Your task to perform on an android device: delete browsing data in the chrome app Image 0: 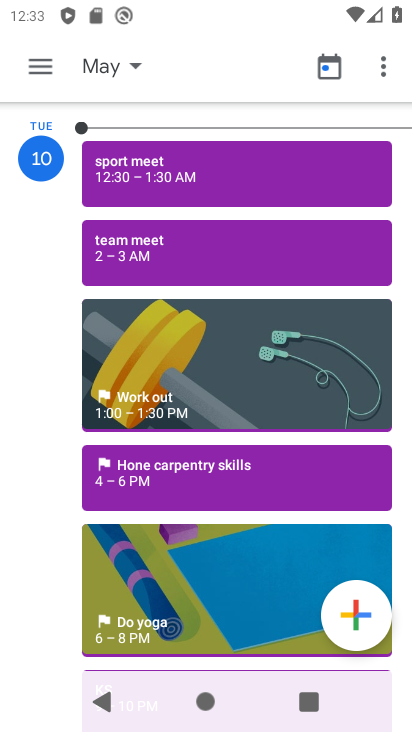
Step 0: press home button
Your task to perform on an android device: delete browsing data in the chrome app Image 1: 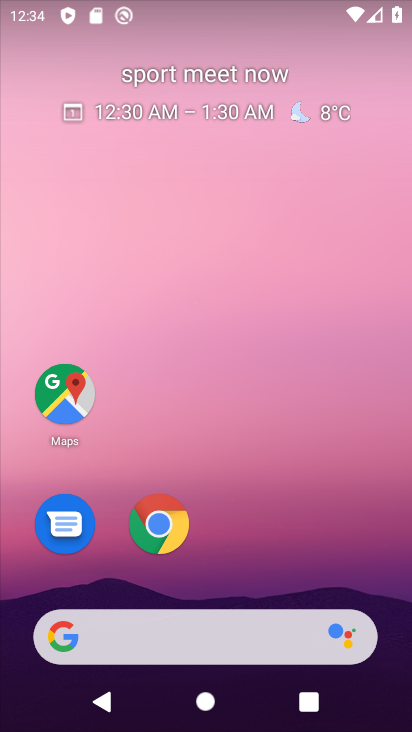
Step 1: click (152, 507)
Your task to perform on an android device: delete browsing data in the chrome app Image 2: 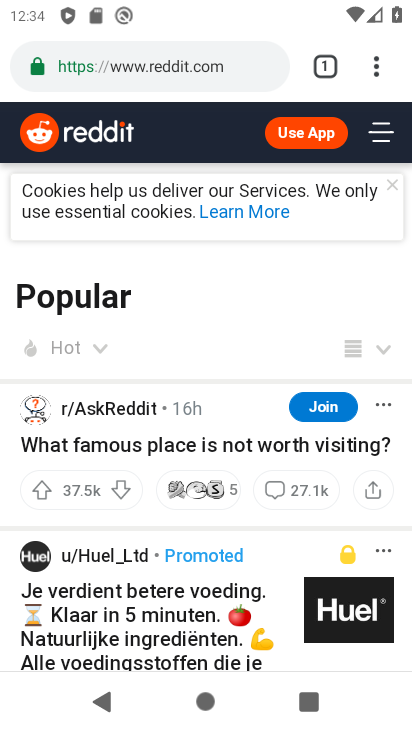
Step 2: drag from (376, 58) to (154, 370)
Your task to perform on an android device: delete browsing data in the chrome app Image 3: 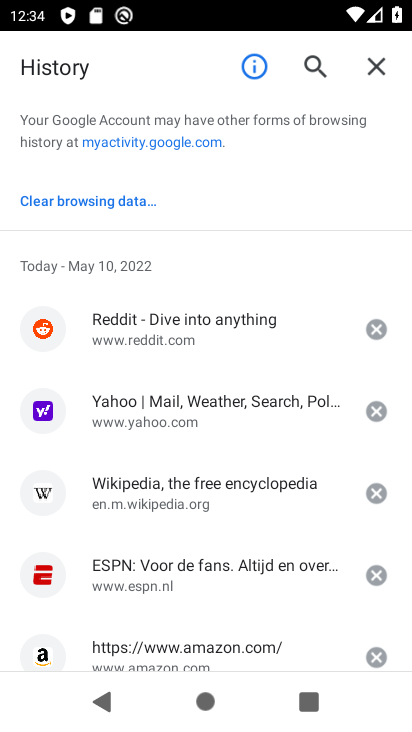
Step 3: click (109, 193)
Your task to perform on an android device: delete browsing data in the chrome app Image 4: 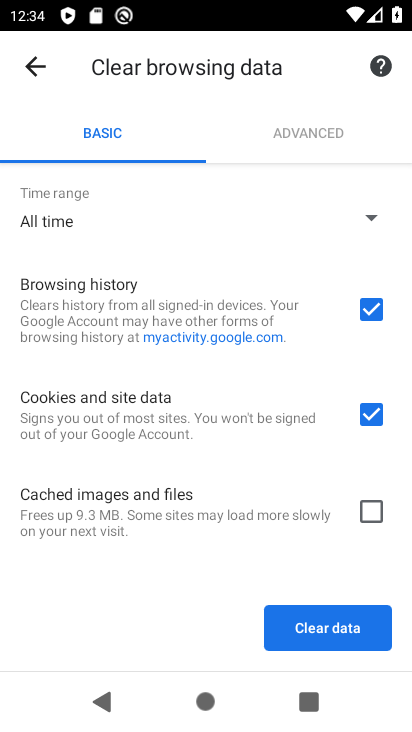
Step 4: click (365, 499)
Your task to perform on an android device: delete browsing data in the chrome app Image 5: 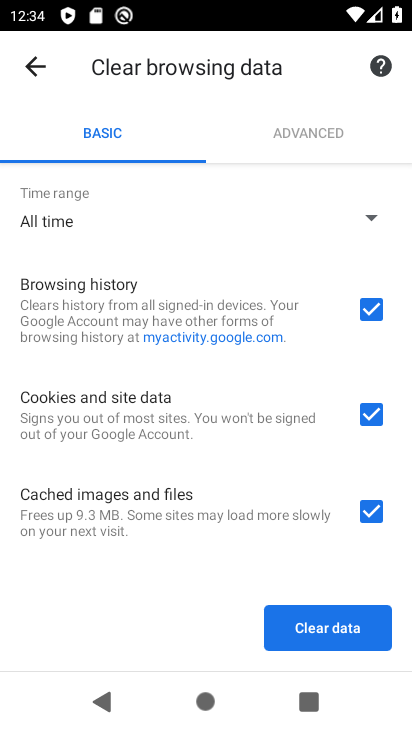
Step 5: click (358, 625)
Your task to perform on an android device: delete browsing data in the chrome app Image 6: 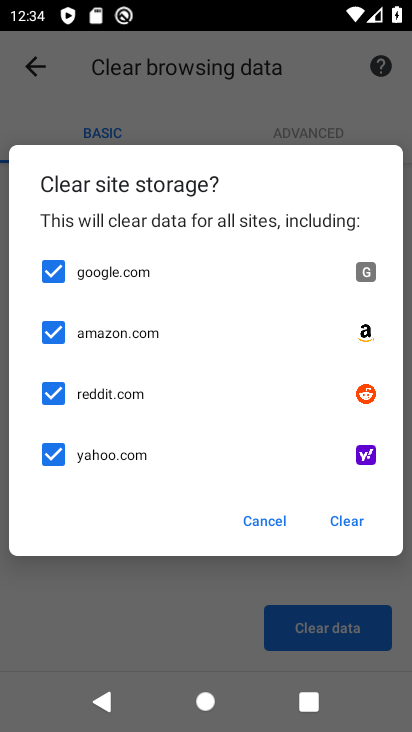
Step 6: click (349, 513)
Your task to perform on an android device: delete browsing data in the chrome app Image 7: 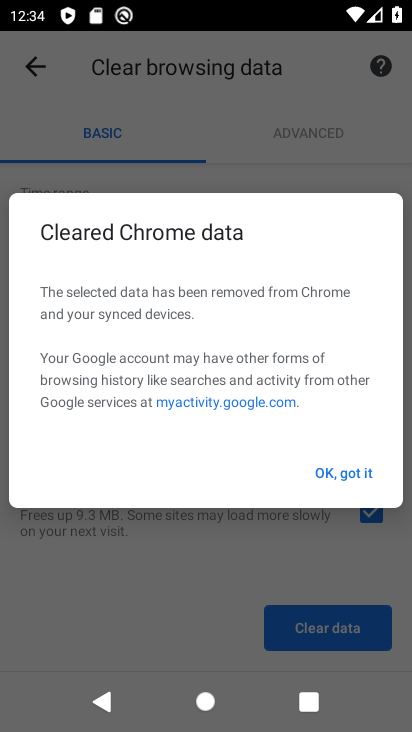
Step 7: click (347, 459)
Your task to perform on an android device: delete browsing data in the chrome app Image 8: 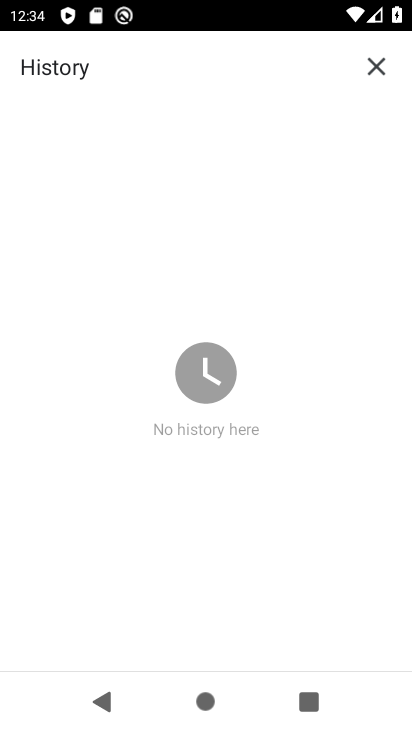
Step 8: task complete